Your task to perform on an android device: Go to eBay Image 0: 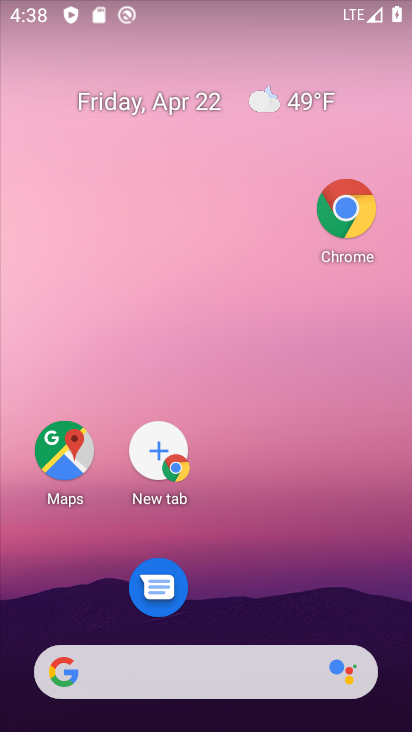
Step 0: click (195, 689)
Your task to perform on an android device: Go to eBay Image 1: 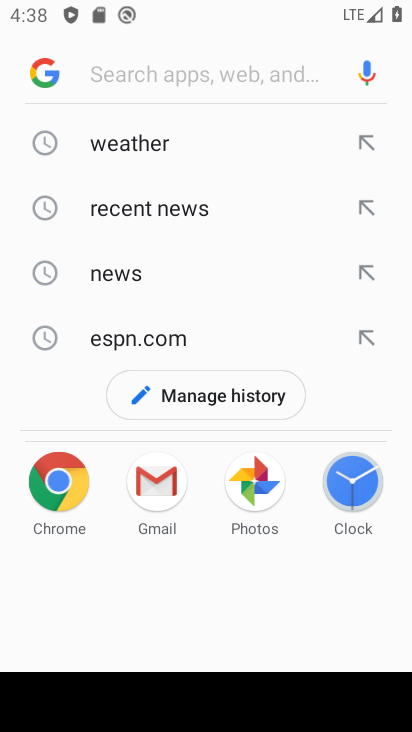
Step 1: type "ebay"
Your task to perform on an android device: Go to eBay Image 2: 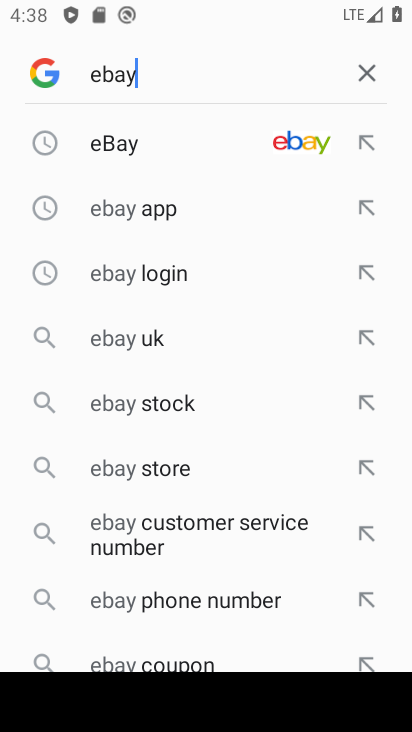
Step 2: click (223, 158)
Your task to perform on an android device: Go to eBay Image 3: 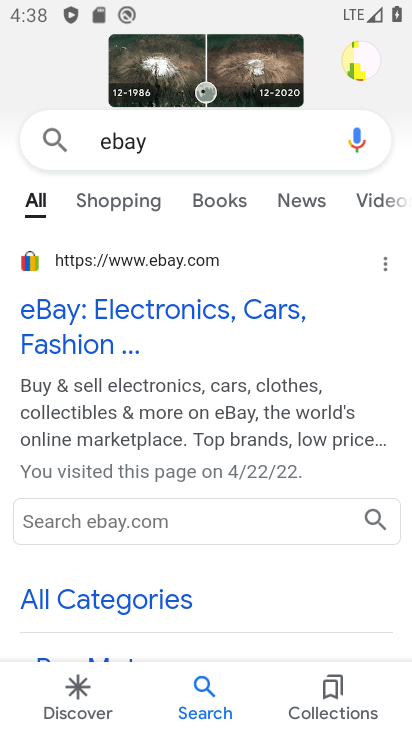
Step 3: task complete